Your task to perform on an android device: open app "Google Photos" Image 0: 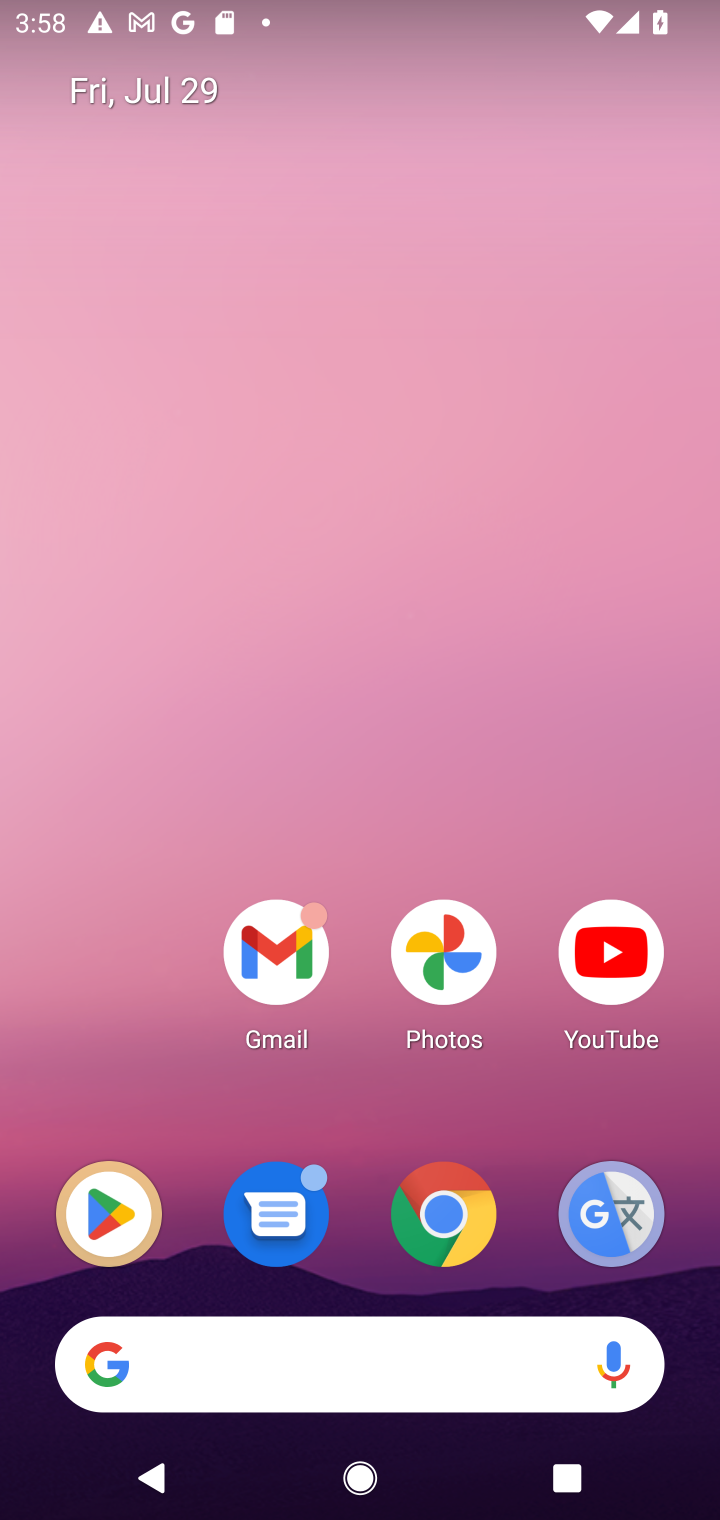
Step 0: click (97, 1241)
Your task to perform on an android device: open app "Google Photos" Image 1: 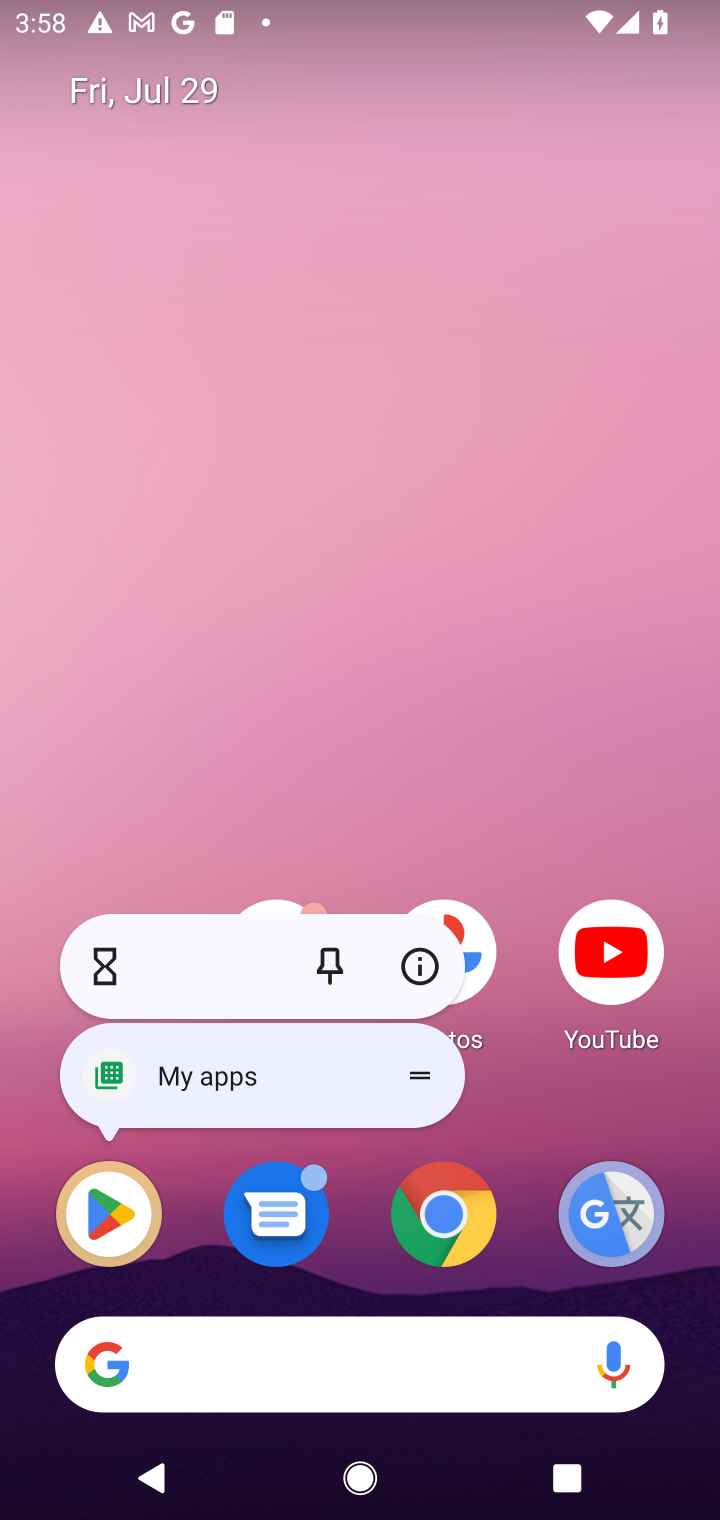
Step 1: click (95, 1255)
Your task to perform on an android device: open app "Google Photos" Image 2: 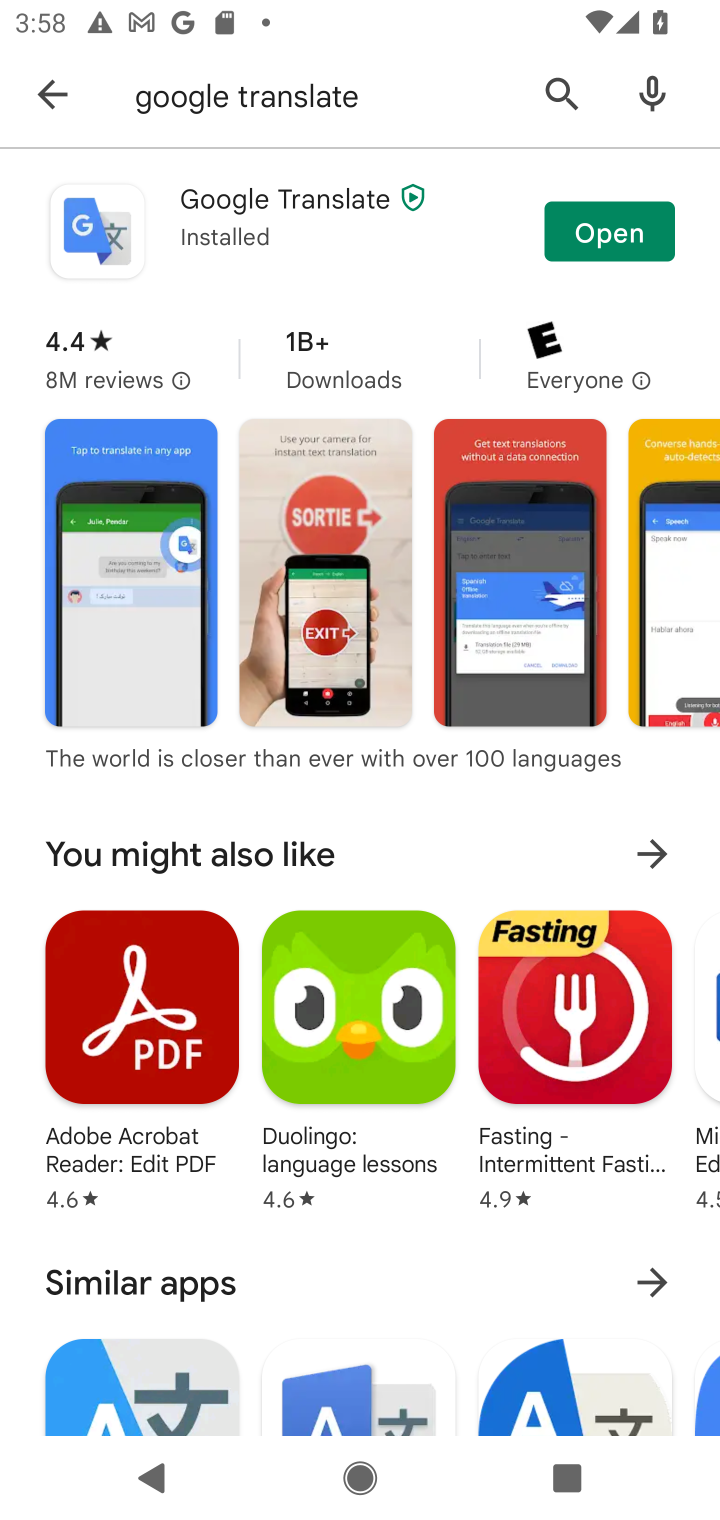
Step 2: click (364, 95)
Your task to perform on an android device: open app "Google Photos" Image 3: 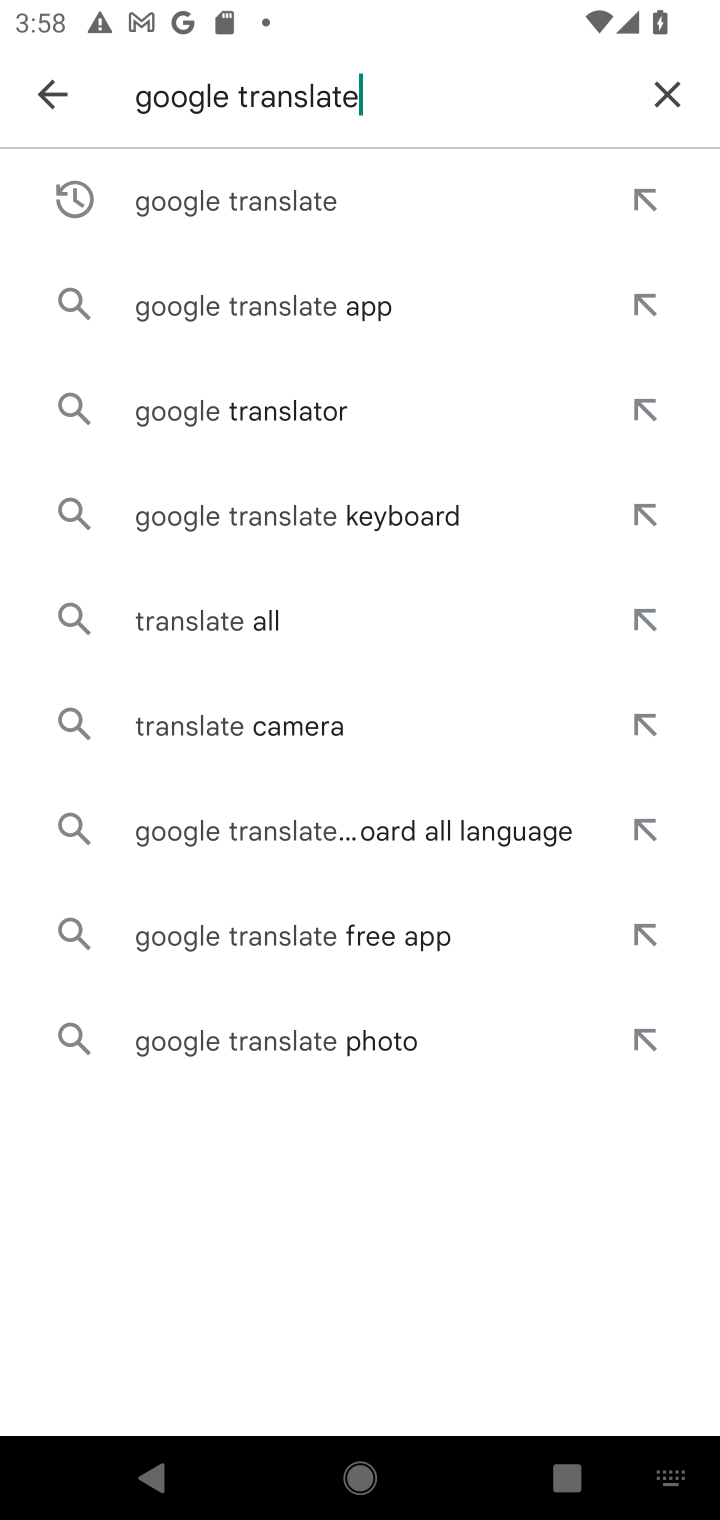
Step 3: click (299, 91)
Your task to perform on an android device: open app "Google Photos" Image 4: 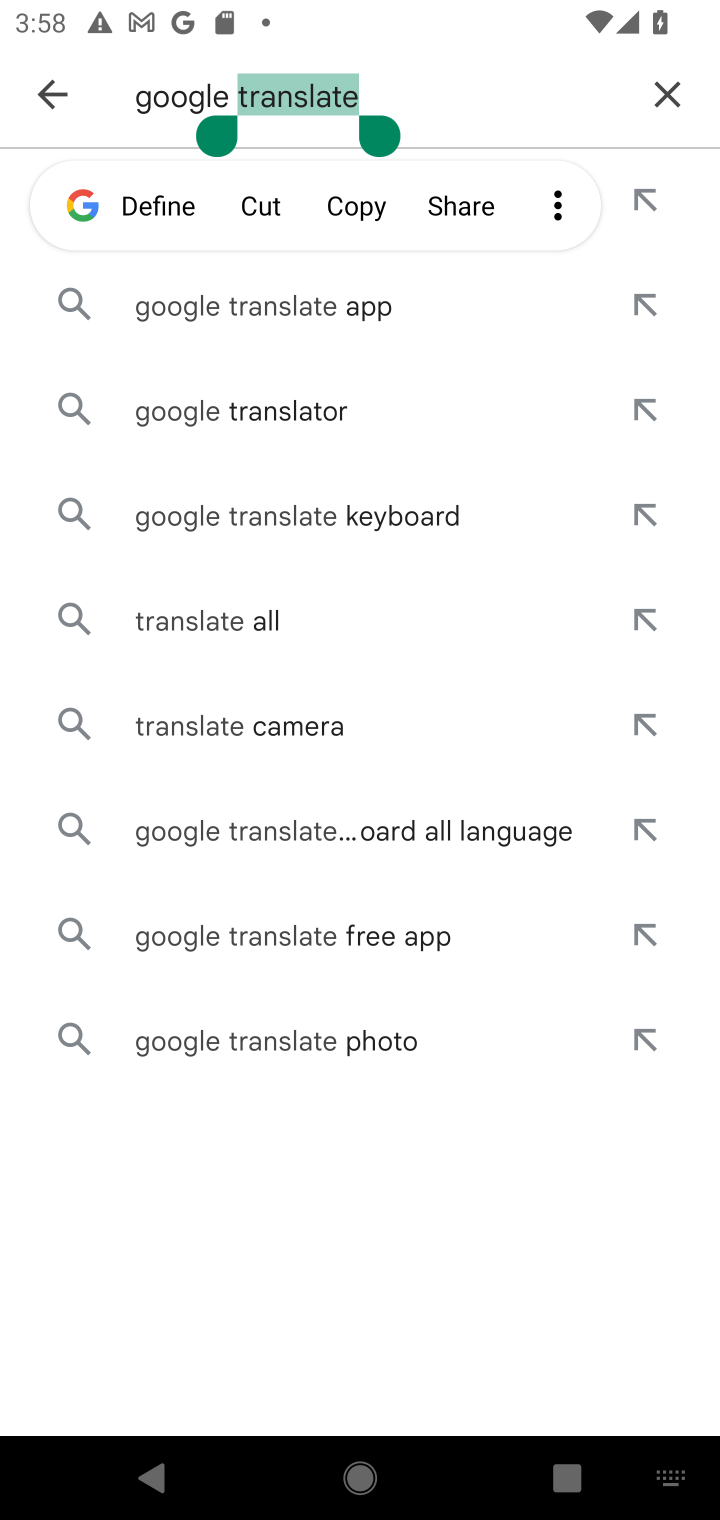
Step 4: type "photos"
Your task to perform on an android device: open app "Google Photos" Image 5: 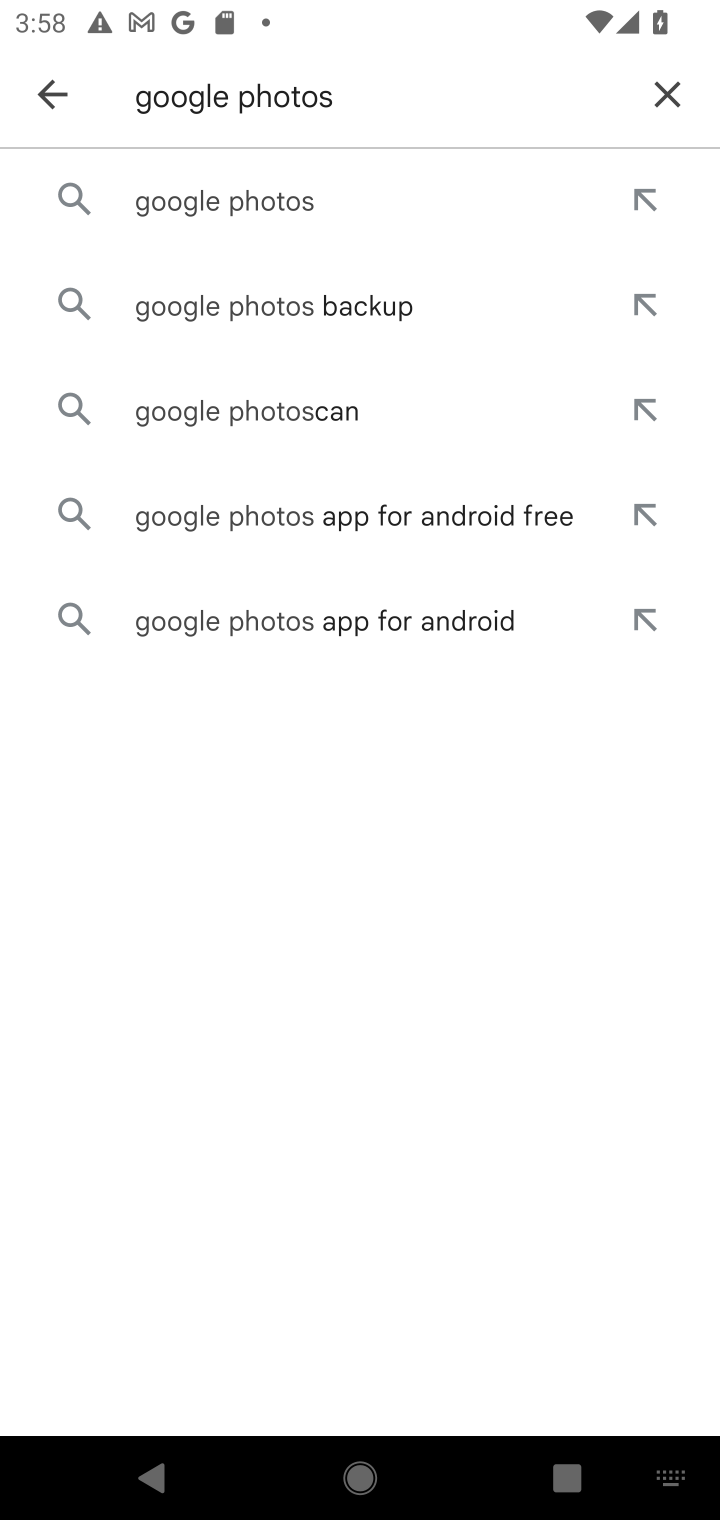
Step 5: click (253, 215)
Your task to perform on an android device: open app "Google Photos" Image 6: 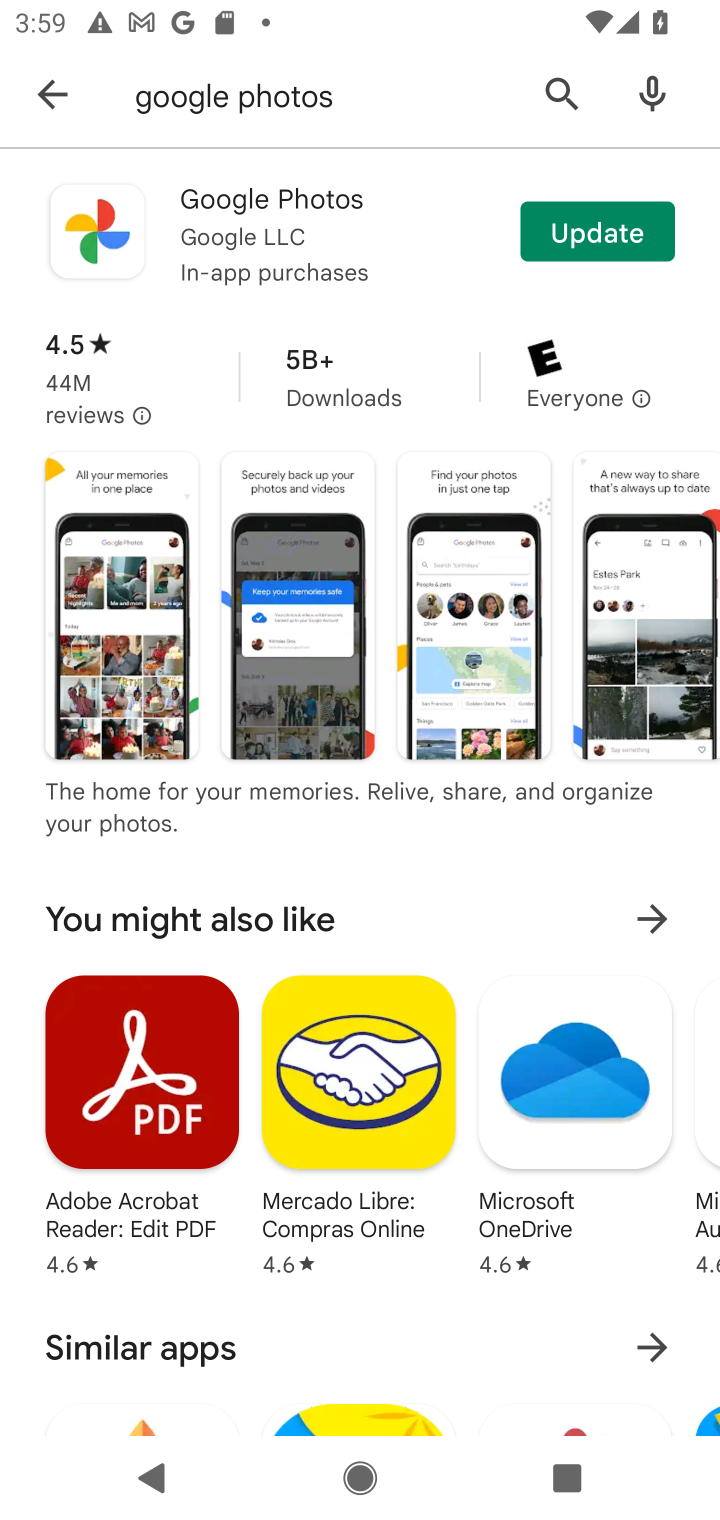
Step 6: click (331, 201)
Your task to perform on an android device: open app "Google Photos" Image 7: 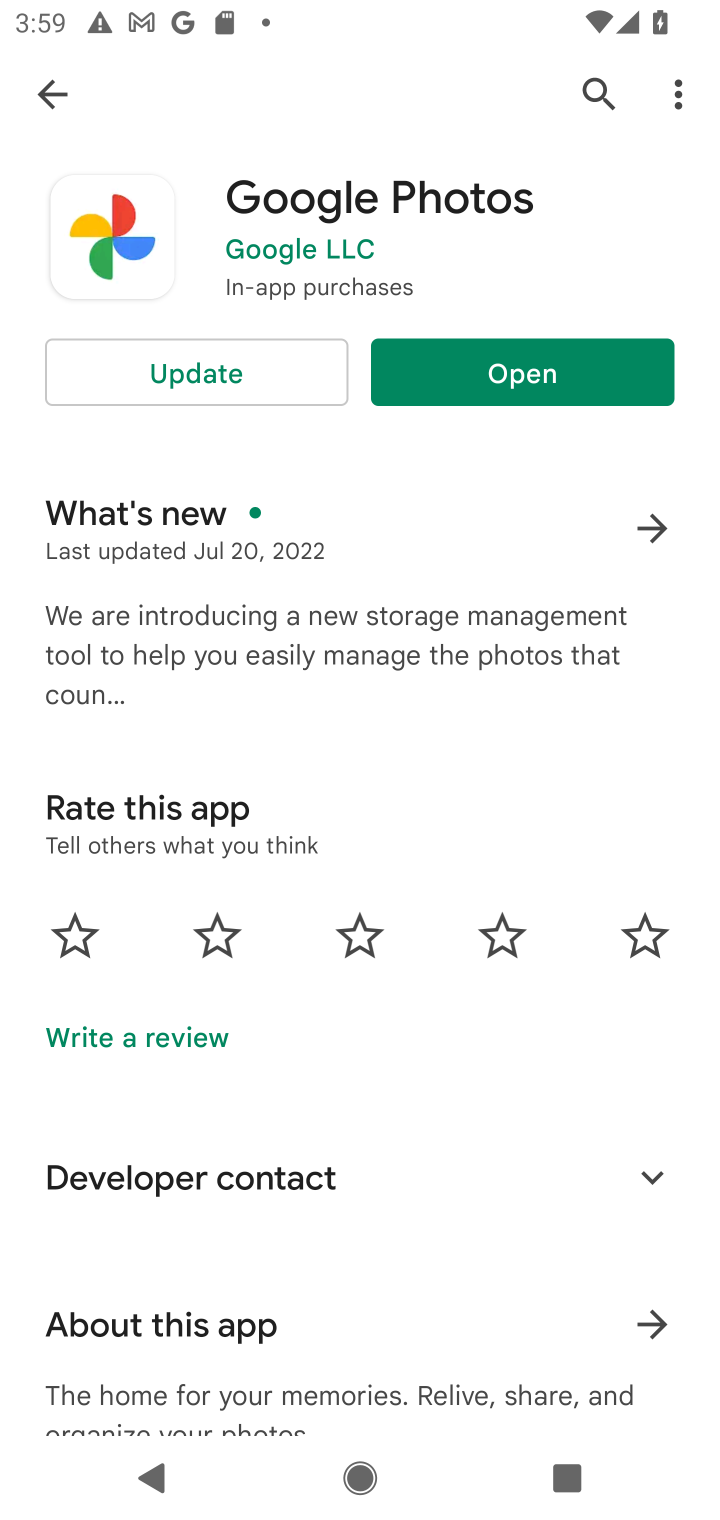
Step 7: click (491, 370)
Your task to perform on an android device: open app "Google Photos" Image 8: 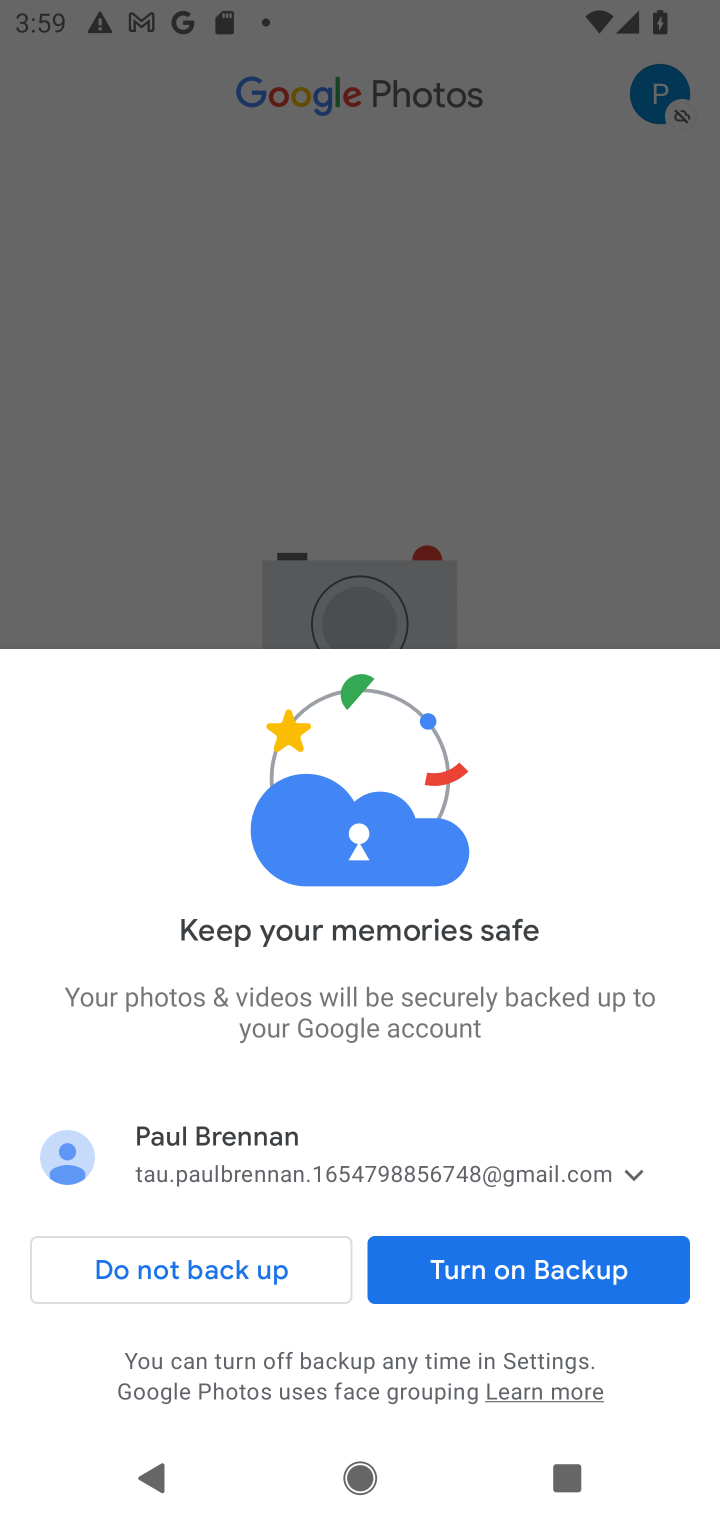
Step 8: click (245, 1254)
Your task to perform on an android device: open app "Google Photos" Image 9: 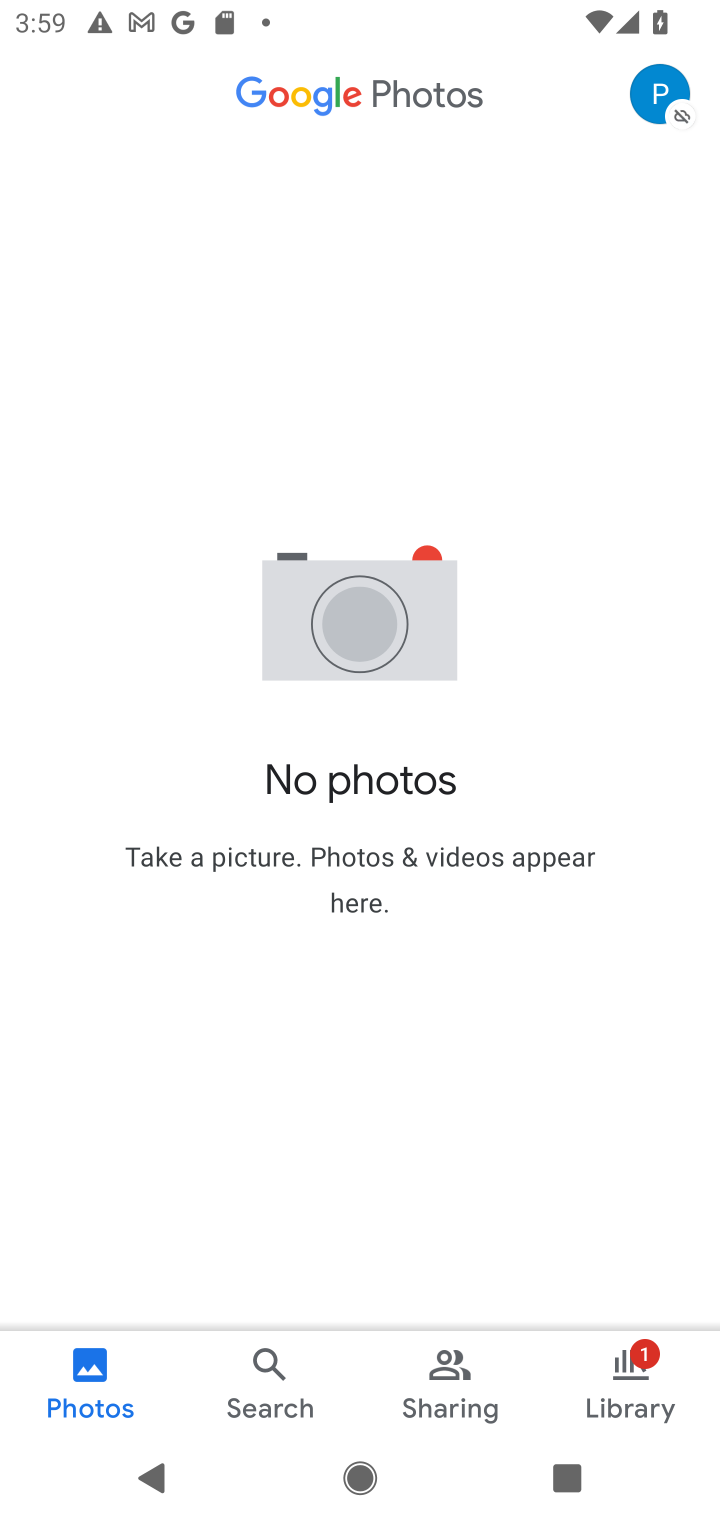
Step 9: task complete